Your task to perform on an android device: set the timer Image 0: 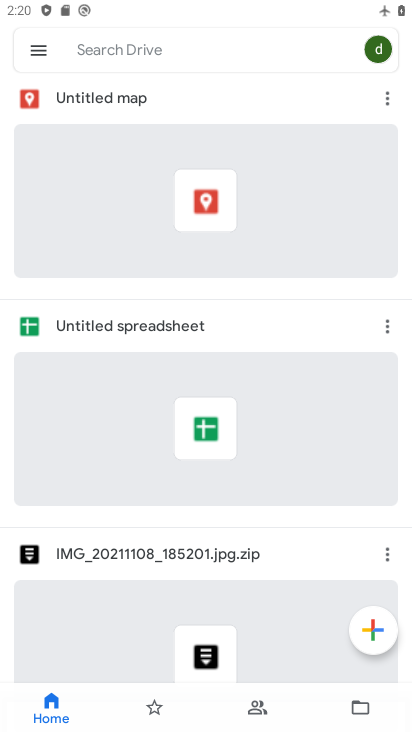
Step 0: press home button
Your task to perform on an android device: set the timer Image 1: 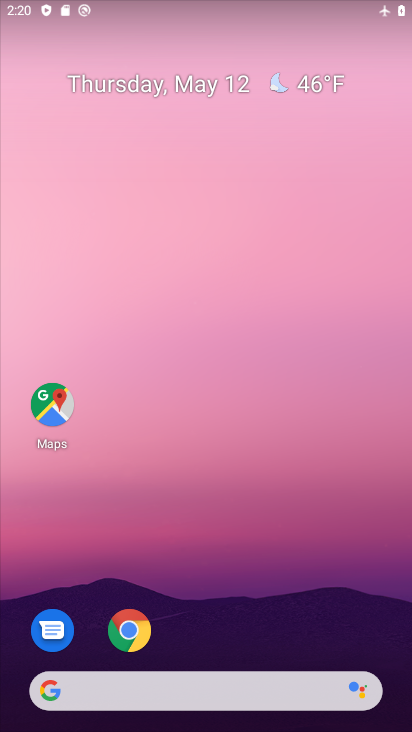
Step 1: drag from (225, 596) to (273, 340)
Your task to perform on an android device: set the timer Image 2: 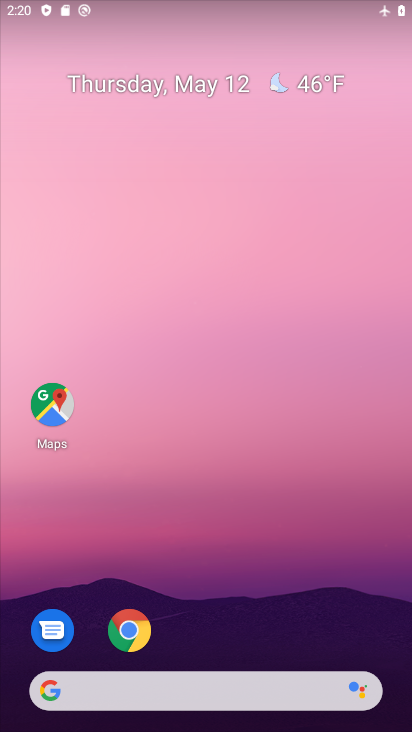
Step 2: drag from (235, 607) to (309, 230)
Your task to perform on an android device: set the timer Image 3: 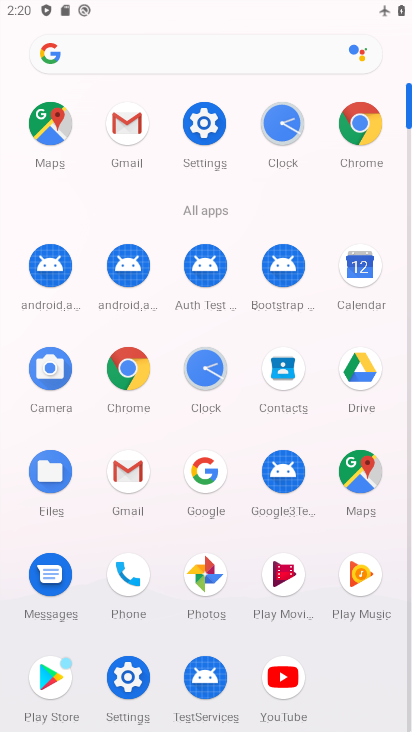
Step 3: click (205, 374)
Your task to perform on an android device: set the timer Image 4: 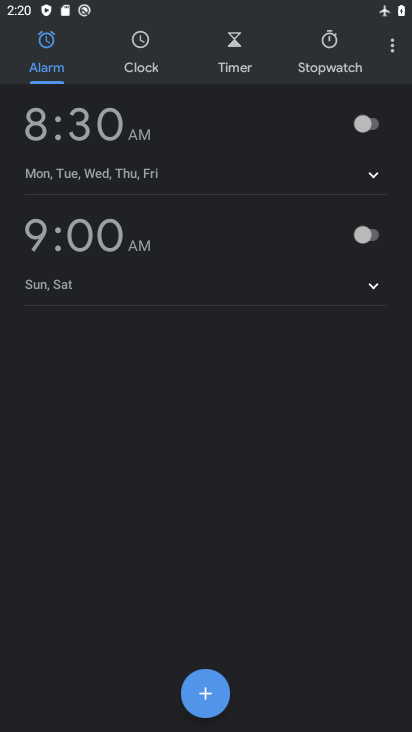
Step 4: click (239, 74)
Your task to perform on an android device: set the timer Image 5: 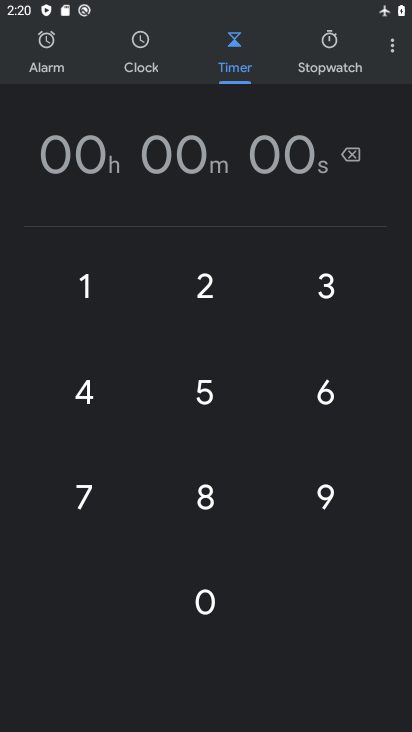
Step 5: click (214, 290)
Your task to perform on an android device: set the timer Image 6: 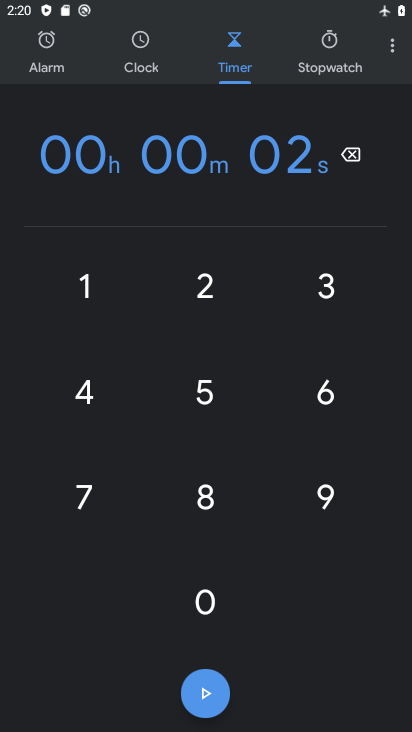
Step 6: click (213, 603)
Your task to perform on an android device: set the timer Image 7: 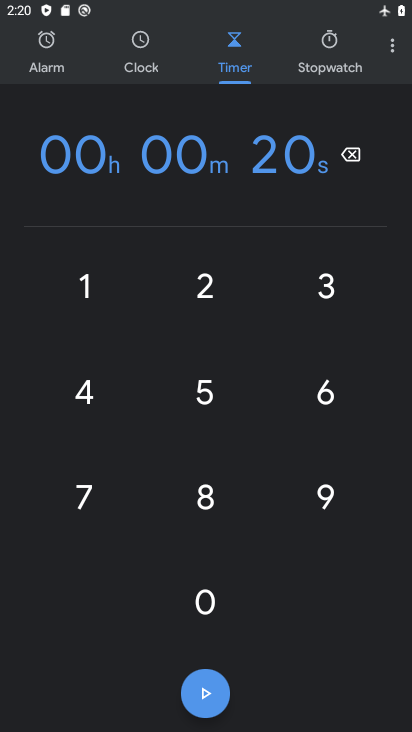
Step 7: click (204, 298)
Your task to perform on an android device: set the timer Image 8: 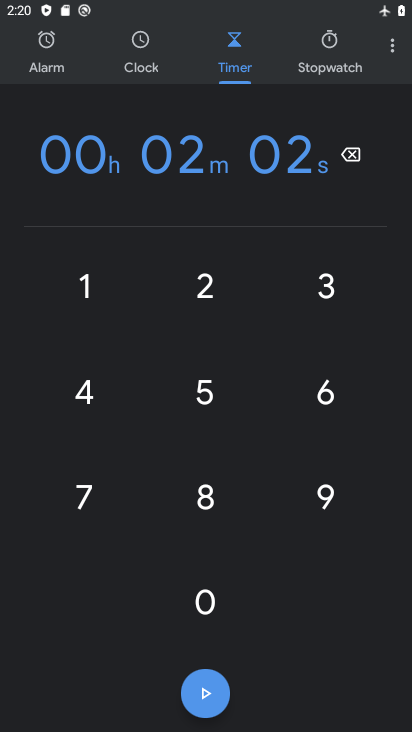
Step 8: click (207, 590)
Your task to perform on an android device: set the timer Image 9: 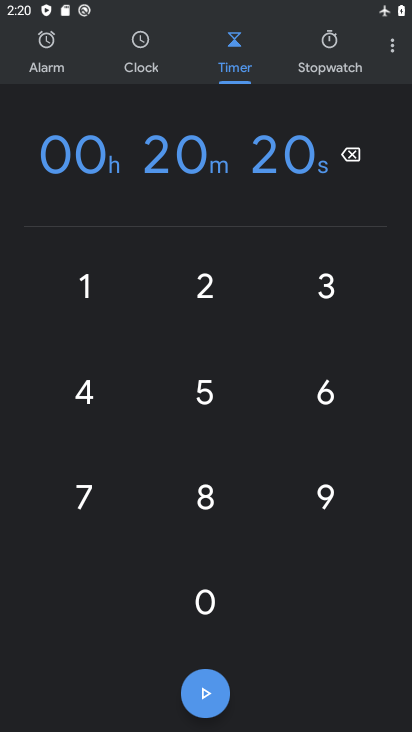
Step 9: click (213, 692)
Your task to perform on an android device: set the timer Image 10: 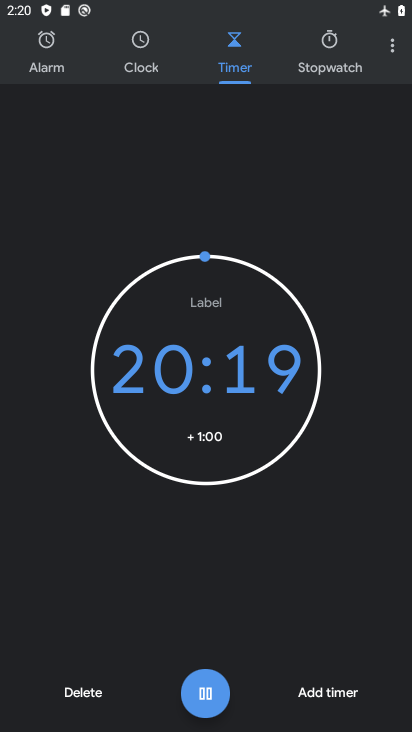
Step 10: click (321, 689)
Your task to perform on an android device: set the timer Image 11: 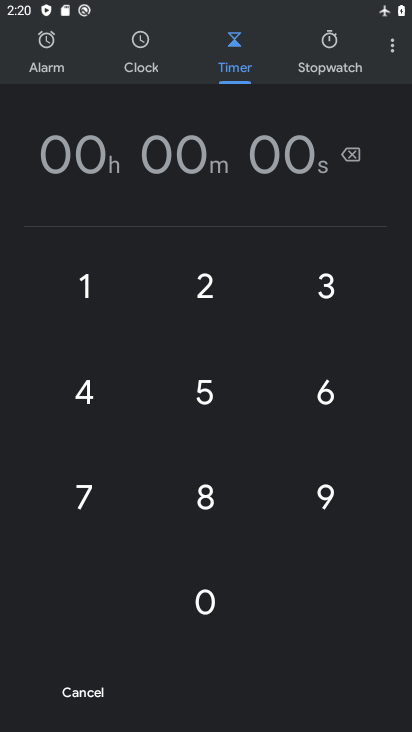
Step 11: task complete